Your task to perform on an android device: Show the shopping cart on ebay.com. Search for jbl charge 4 on ebay.com, select the first entry, add it to the cart, then select checkout. Image 0: 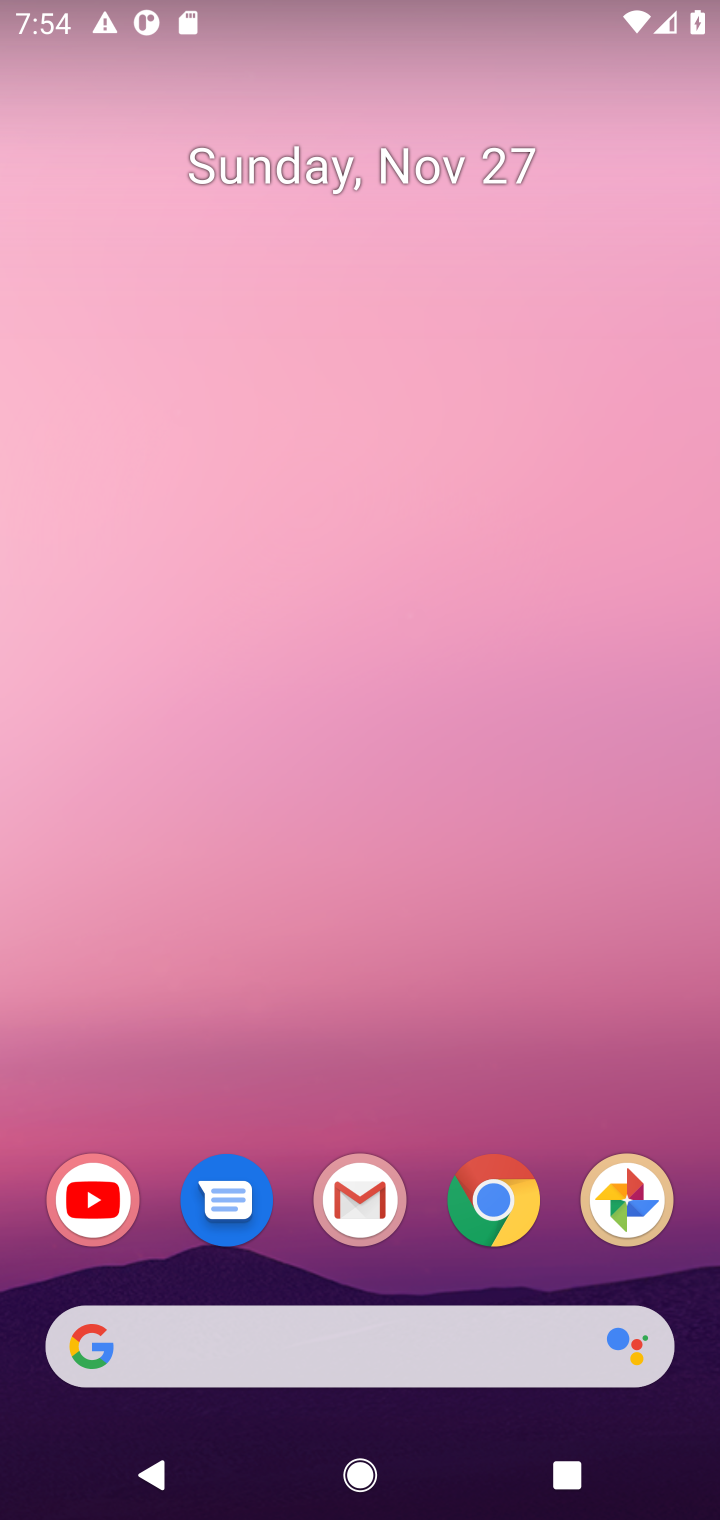
Step 0: click (505, 1196)
Your task to perform on an android device: Show the shopping cart on ebay.com. Search for jbl charge 4 on ebay.com, select the first entry, add it to the cart, then select checkout. Image 1: 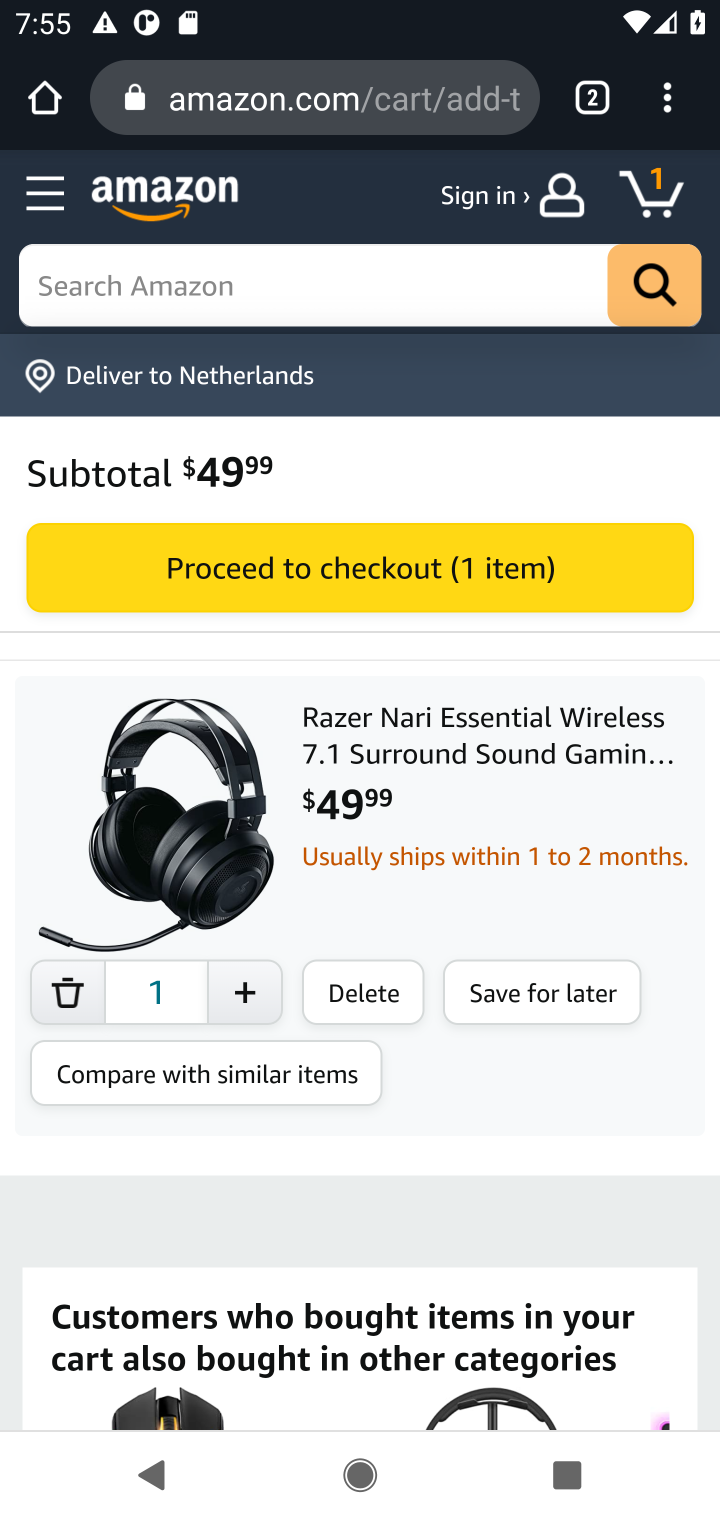
Step 1: click (296, 118)
Your task to perform on an android device: Show the shopping cart on ebay.com. Search for jbl charge 4 on ebay.com, select the first entry, add it to the cart, then select checkout. Image 2: 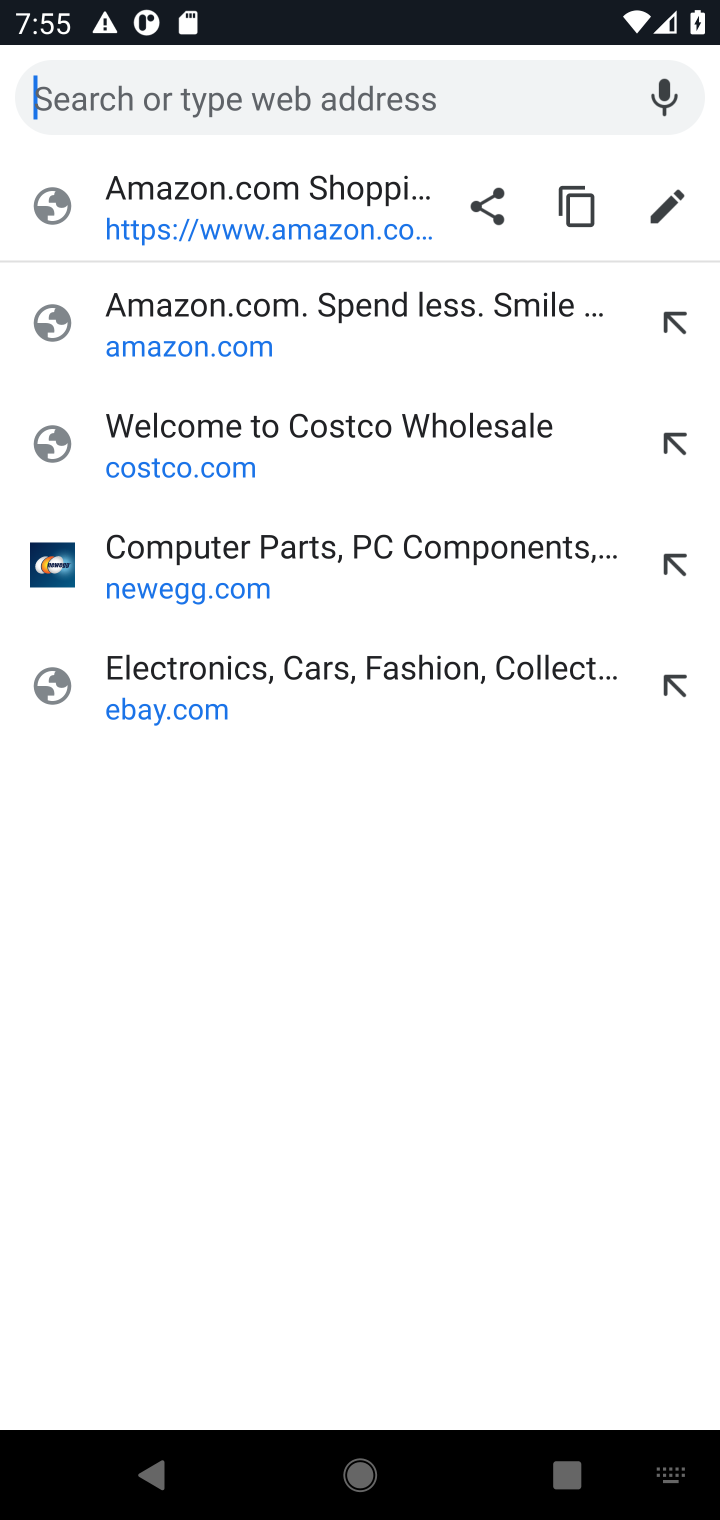
Step 2: click (159, 688)
Your task to perform on an android device: Show the shopping cart on ebay.com. Search for jbl charge 4 on ebay.com, select the first entry, add it to the cart, then select checkout. Image 3: 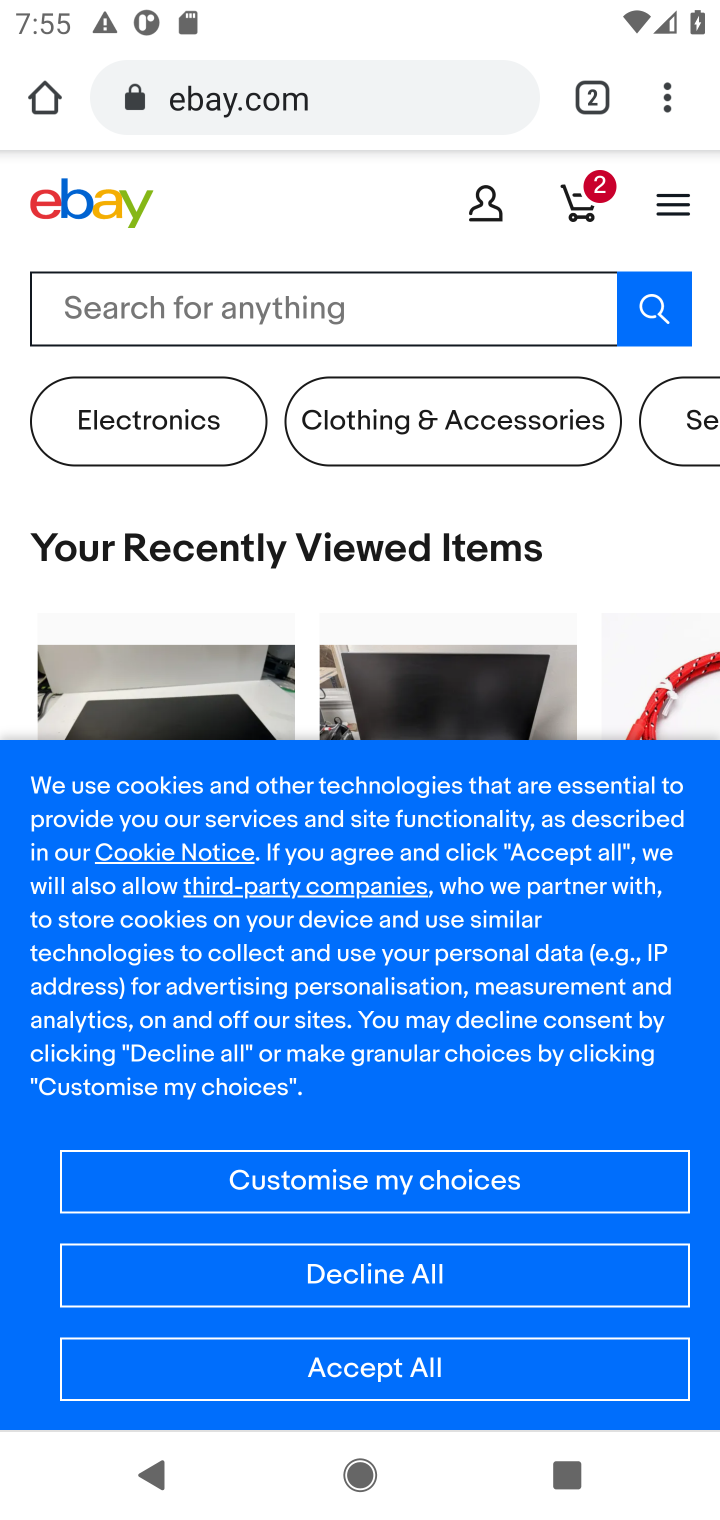
Step 3: click (591, 214)
Your task to perform on an android device: Show the shopping cart on ebay.com. Search for jbl charge 4 on ebay.com, select the first entry, add it to the cart, then select checkout. Image 4: 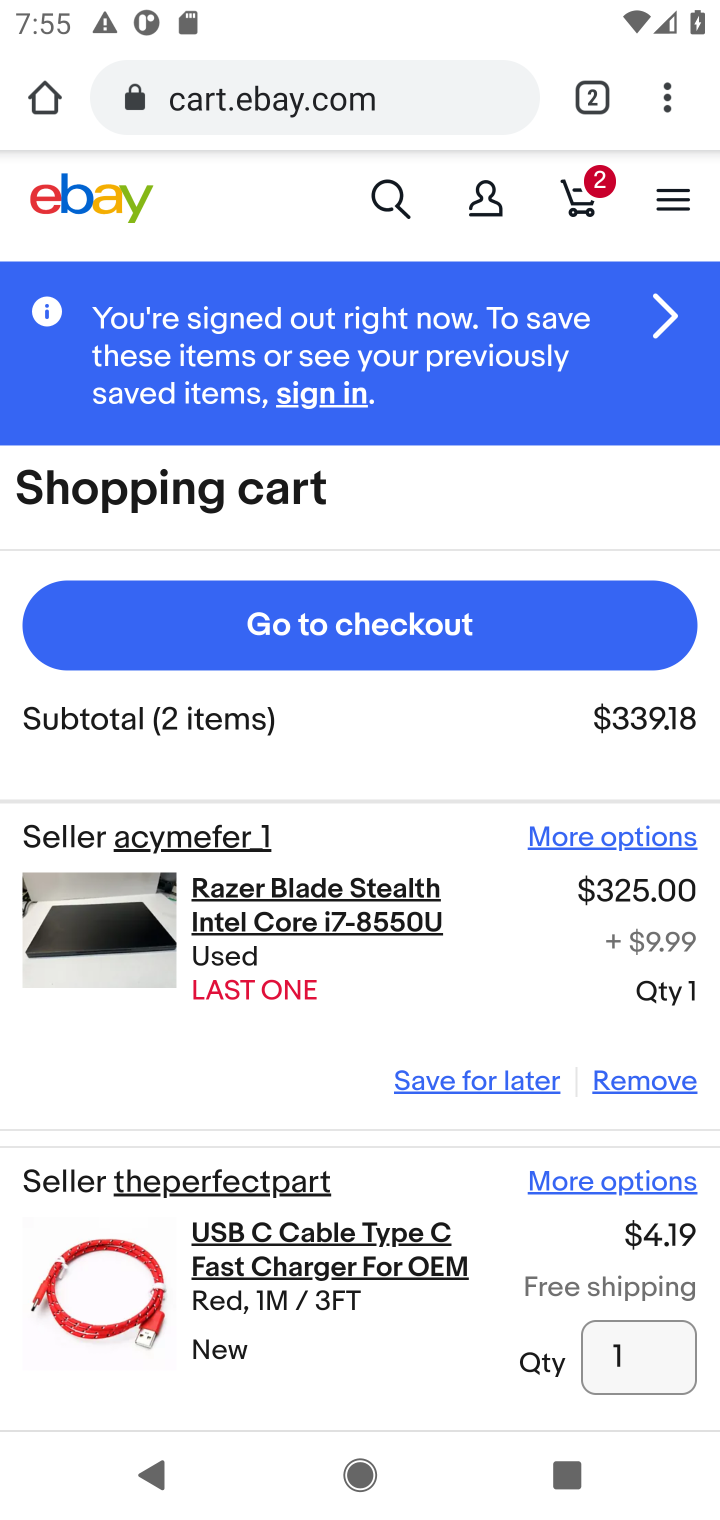
Step 4: click (380, 192)
Your task to perform on an android device: Show the shopping cart on ebay.com. Search for jbl charge 4 on ebay.com, select the first entry, add it to the cart, then select checkout. Image 5: 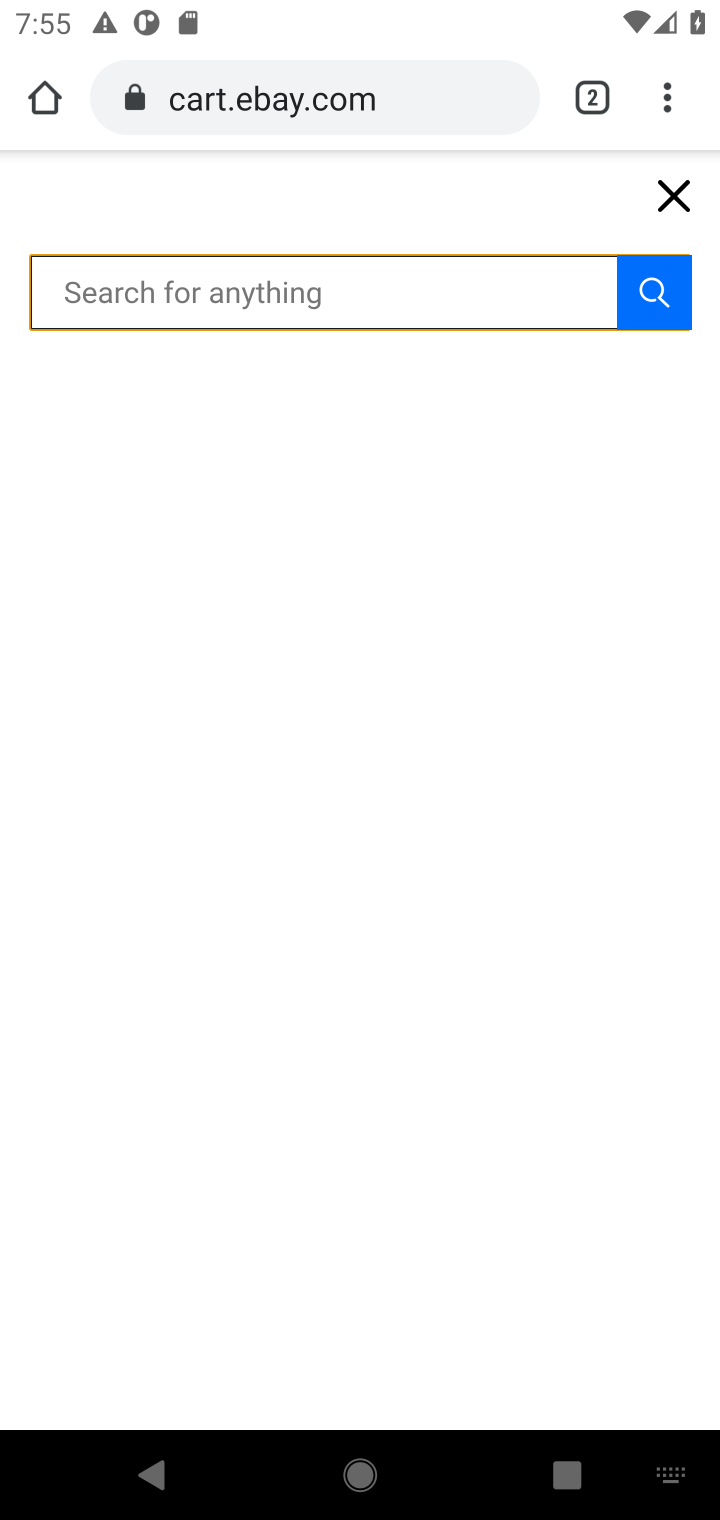
Step 5: type "jbl charge 4"
Your task to perform on an android device: Show the shopping cart on ebay.com. Search for jbl charge 4 on ebay.com, select the first entry, add it to the cart, then select checkout. Image 6: 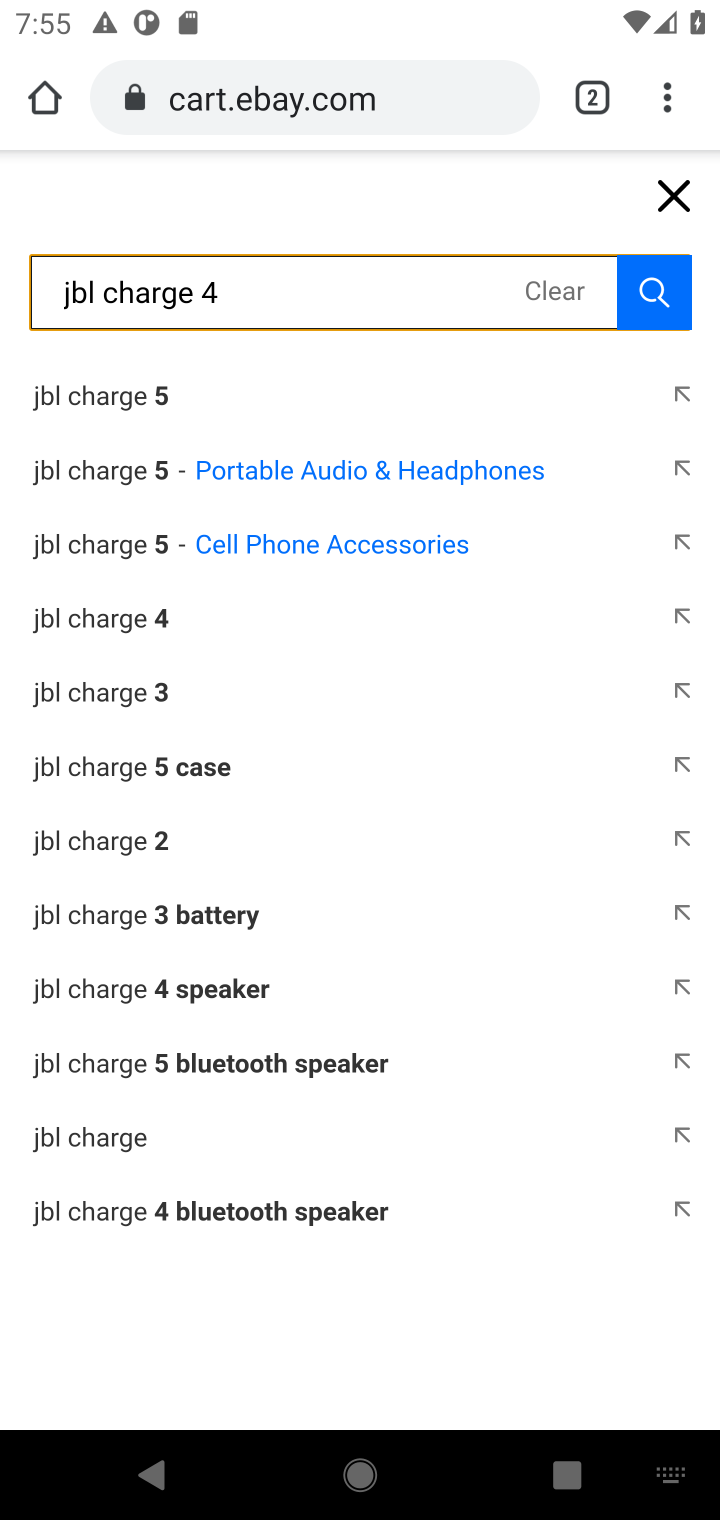
Step 6: click (83, 622)
Your task to perform on an android device: Show the shopping cart on ebay.com. Search for jbl charge 4 on ebay.com, select the first entry, add it to the cart, then select checkout. Image 7: 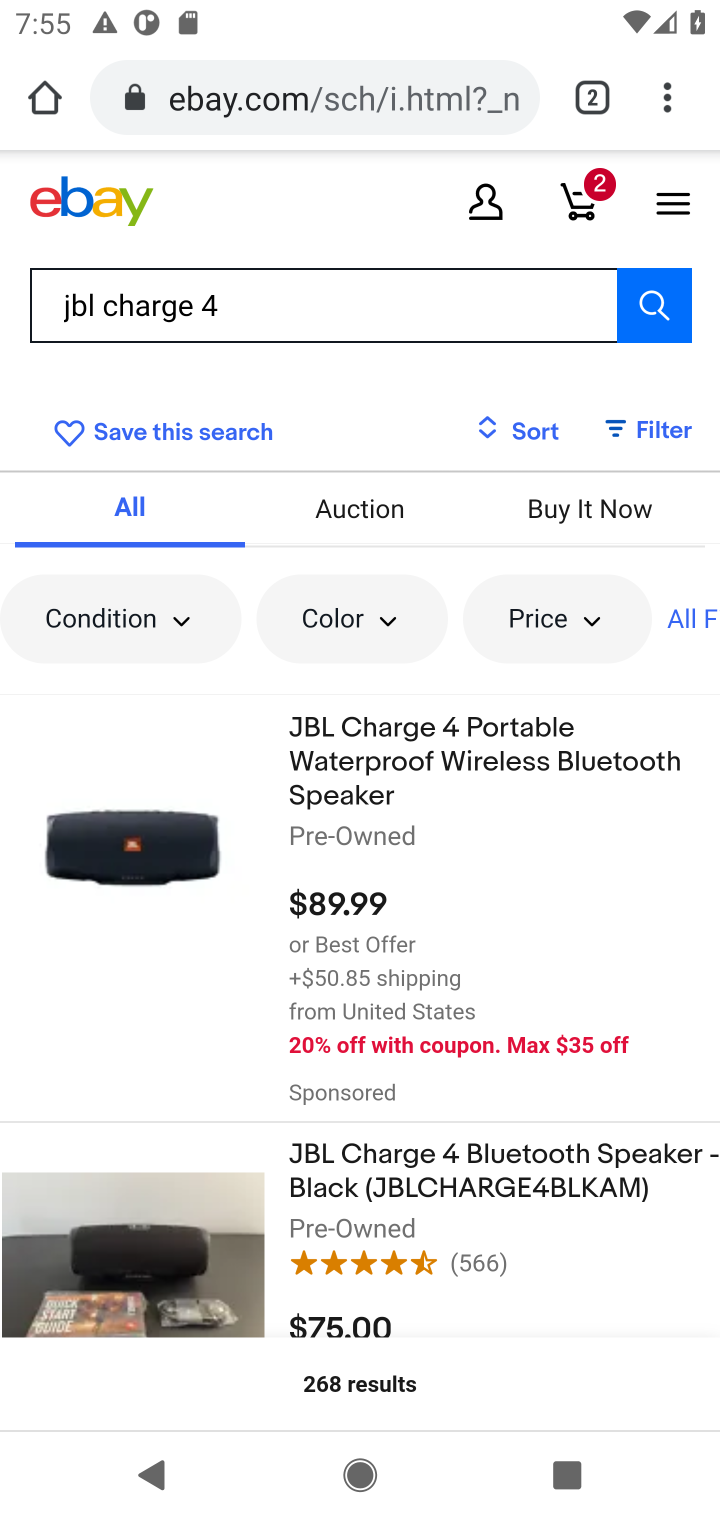
Step 7: click (357, 777)
Your task to perform on an android device: Show the shopping cart on ebay.com. Search for jbl charge 4 on ebay.com, select the first entry, add it to the cart, then select checkout. Image 8: 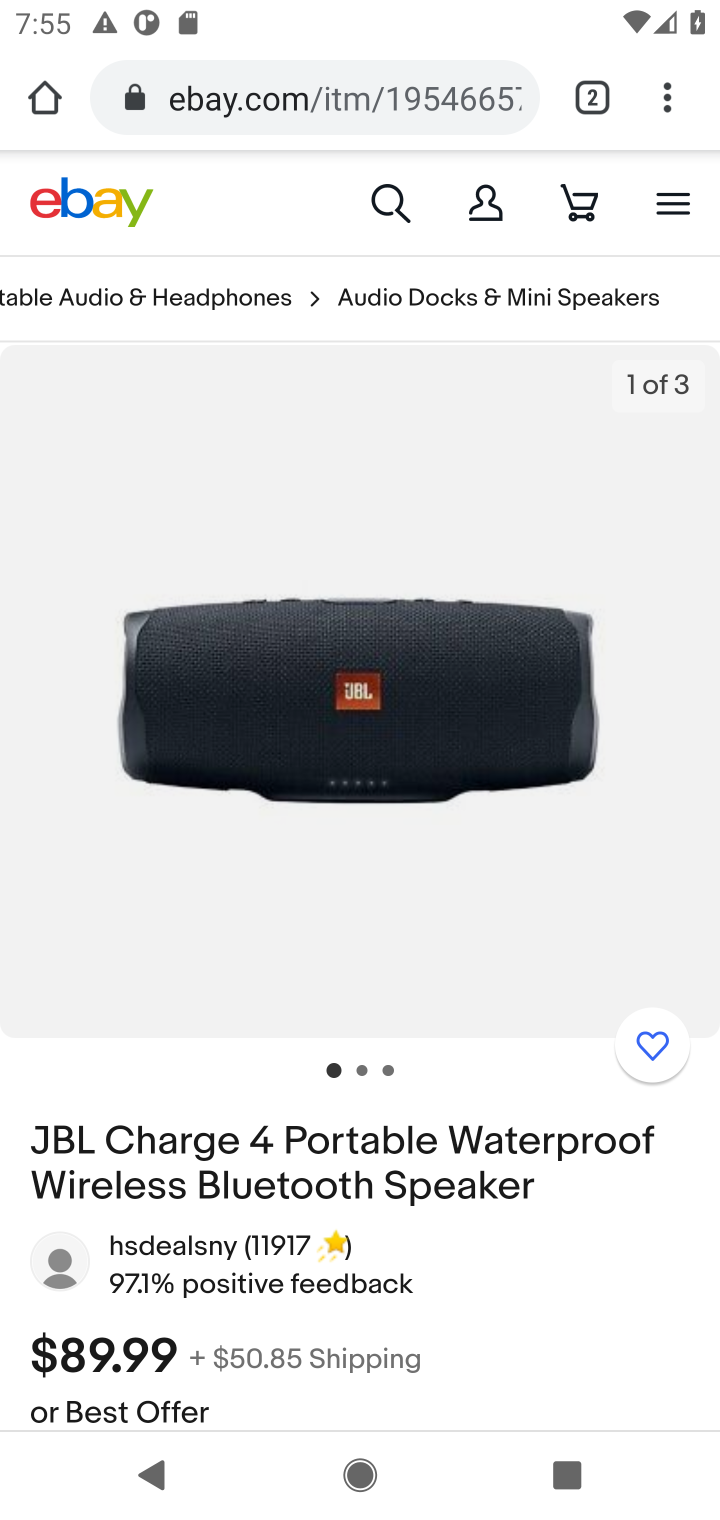
Step 8: drag from (314, 1057) to (318, 465)
Your task to perform on an android device: Show the shopping cart on ebay.com. Search for jbl charge 4 on ebay.com, select the first entry, add it to the cart, then select checkout. Image 9: 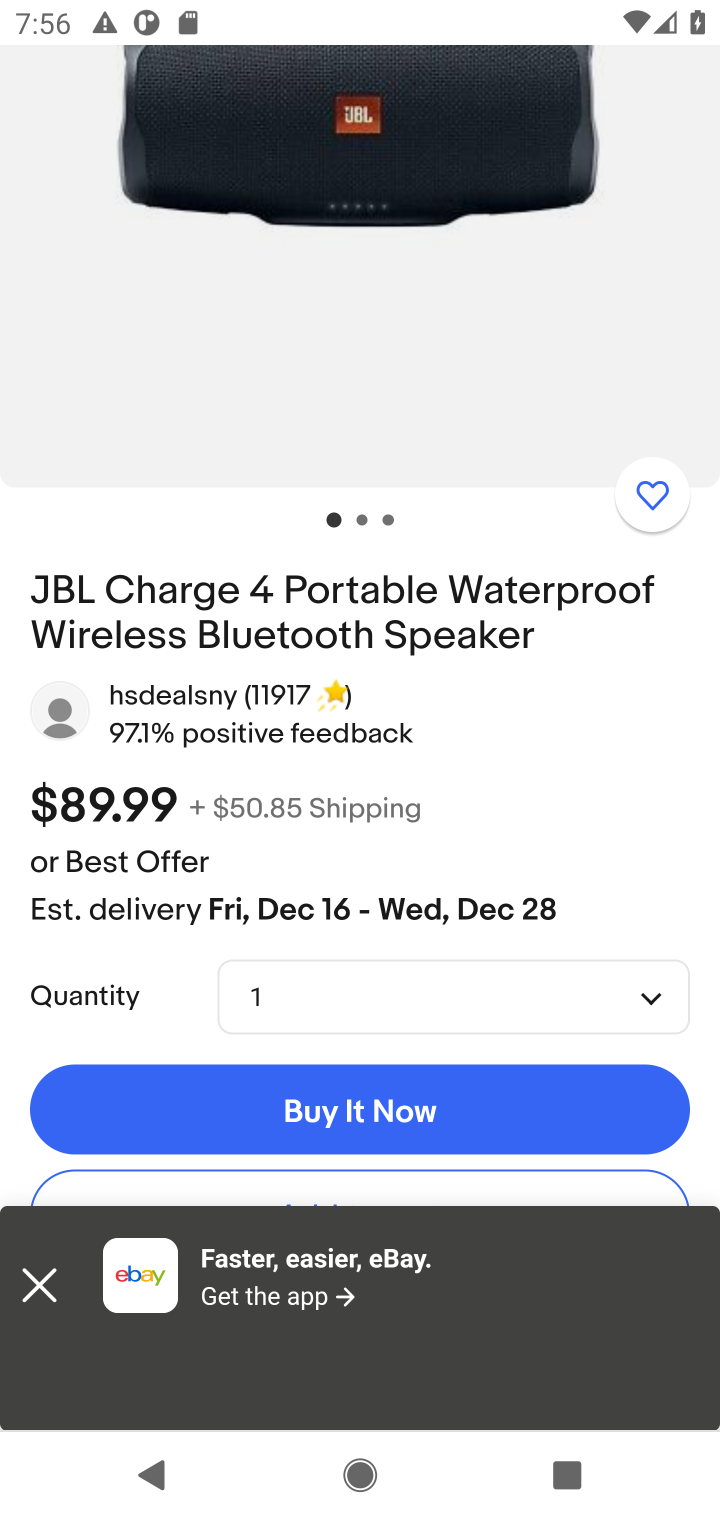
Step 9: drag from (343, 1118) to (318, 710)
Your task to perform on an android device: Show the shopping cart on ebay.com. Search for jbl charge 4 on ebay.com, select the first entry, add it to the cart, then select checkout. Image 10: 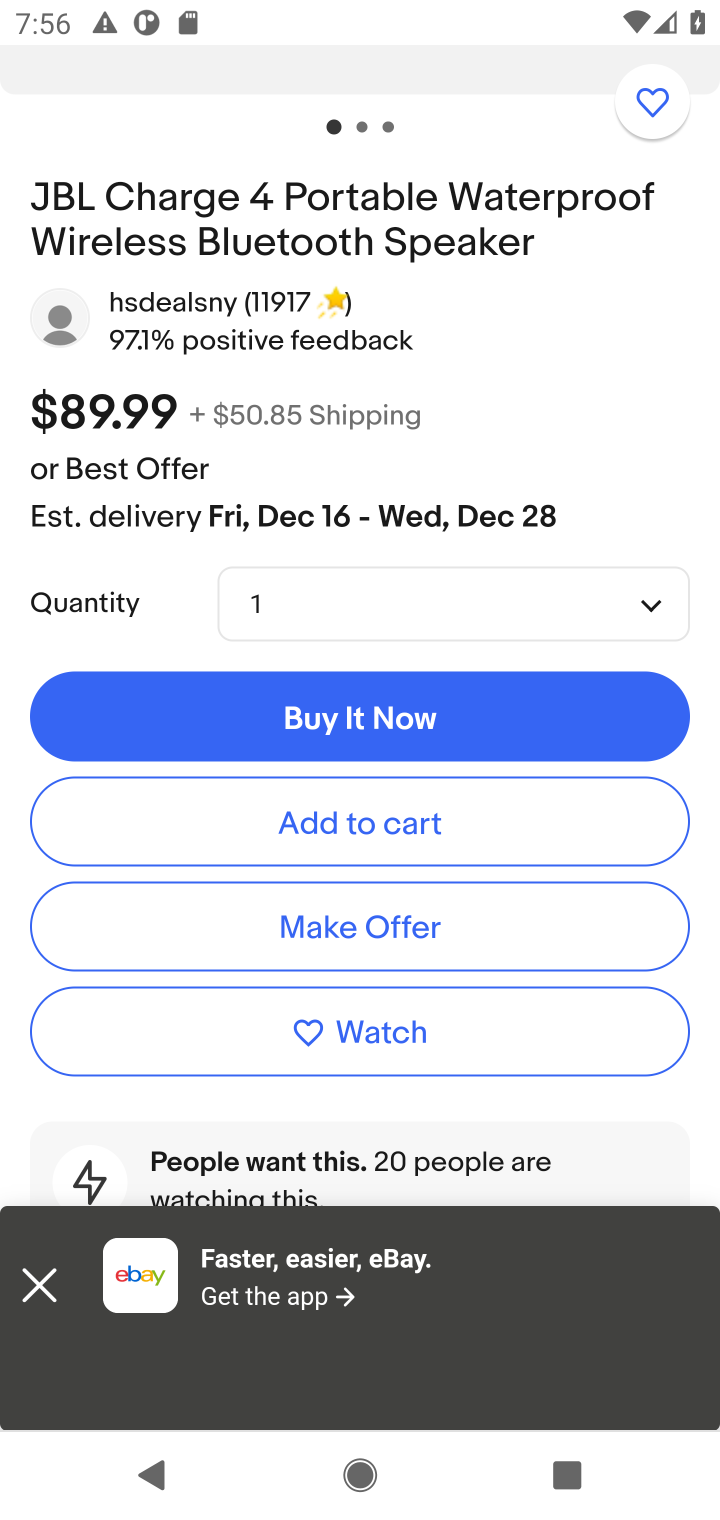
Step 10: click (320, 830)
Your task to perform on an android device: Show the shopping cart on ebay.com. Search for jbl charge 4 on ebay.com, select the first entry, add it to the cart, then select checkout. Image 11: 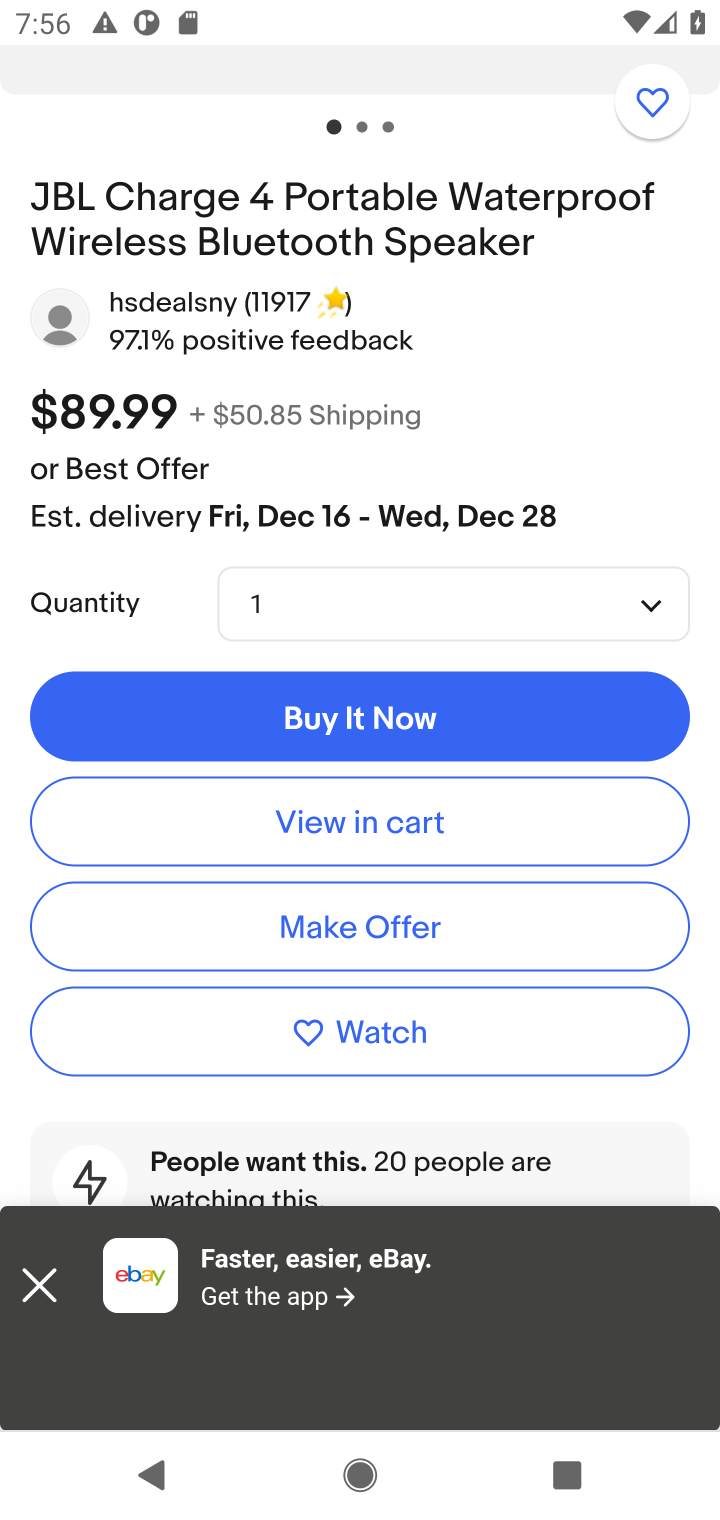
Step 11: click (320, 830)
Your task to perform on an android device: Show the shopping cart on ebay.com. Search for jbl charge 4 on ebay.com, select the first entry, add it to the cart, then select checkout. Image 12: 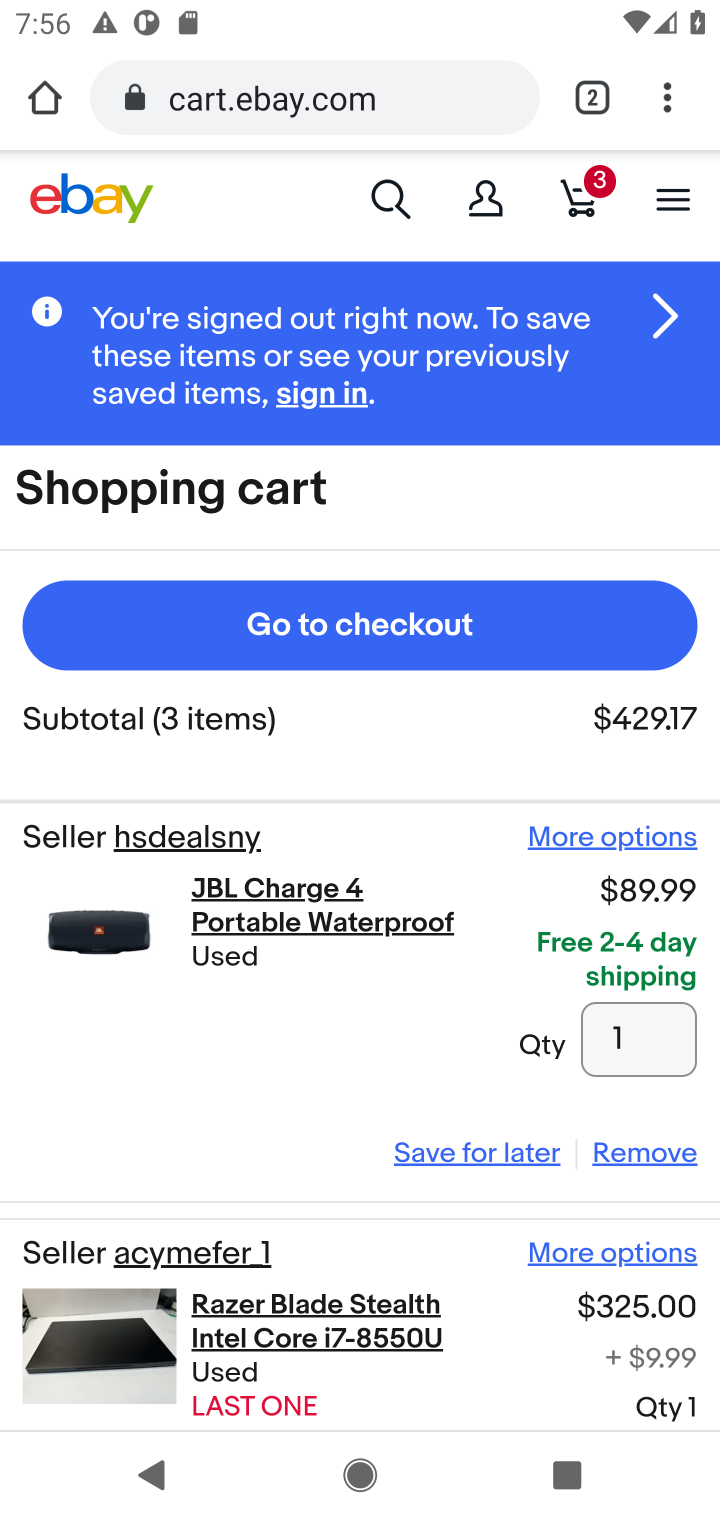
Step 12: click (305, 628)
Your task to perform on an android device: Show the shopping cart on ebay.com. Search for jbl charge 4 on ebay.com, select the first entry, add it to the cart, then select checkout. Image 13: 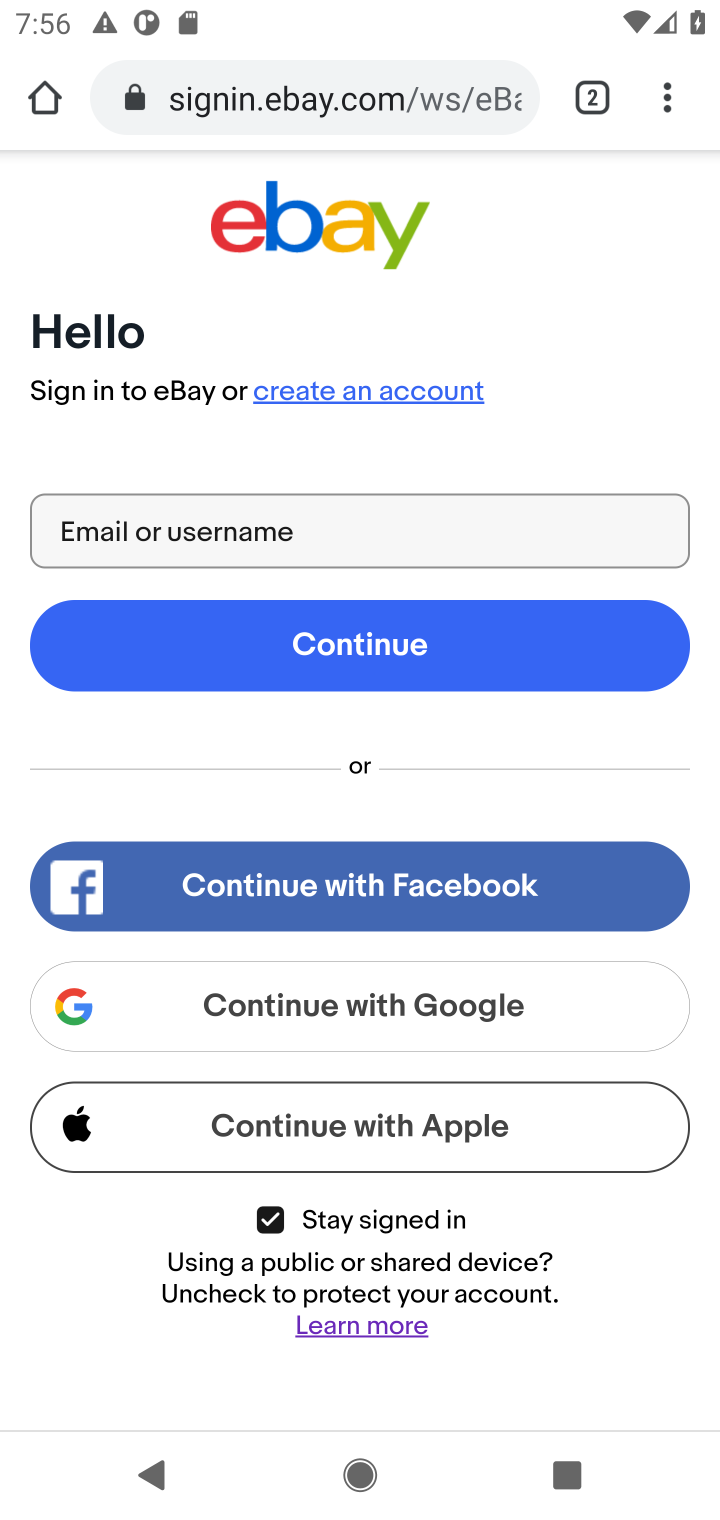
Step 13: task complete